Your task to perform on an android device: What is the news today? Image 0: 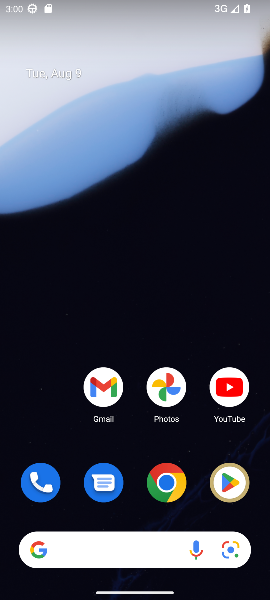
Step 0: drag from (141, 447) to (175, 81)
Your task to perform on an android device: What is the news today? Image 1: 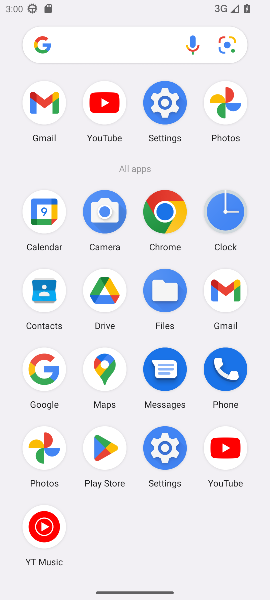
Step 1: click (49, 371)
Your task to perform on an android device: What is the news today? Image 2: 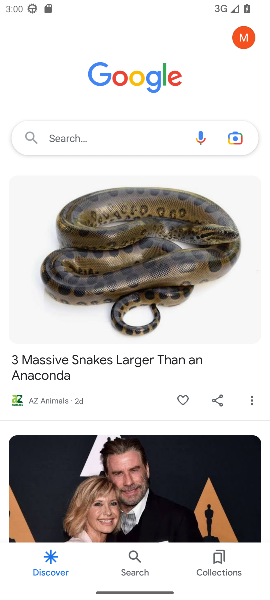
Step 2: click (91, 137)
Your task to perform on an android device: What is the news today? Image 3: 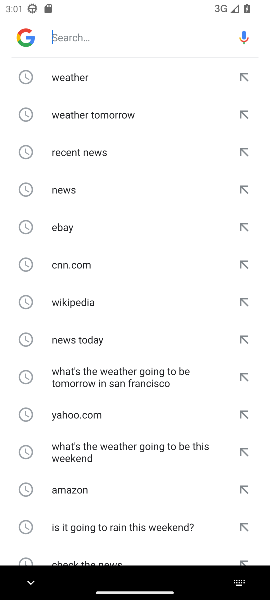
Step 3: type "news"
Your task to perform on an android device: What is the news today? Image 4: 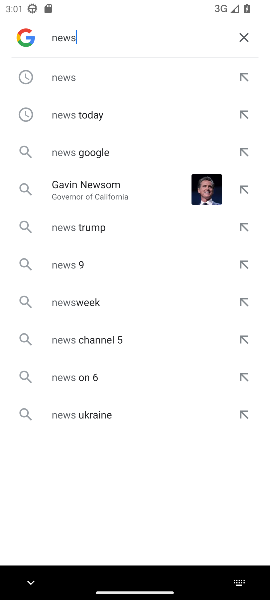
Step 4: click (69, 82)
Your task to perform on an android device: What is the news today? Image 5: 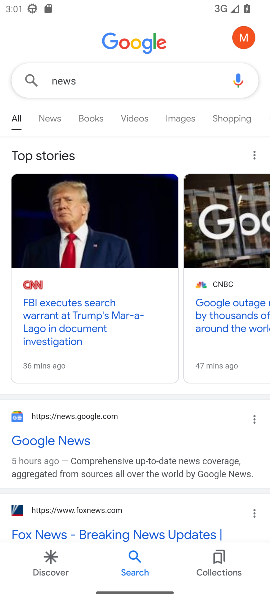
Step 5: click (55, 119)
Your task to perform on an android device: What is the news today? Image 6: 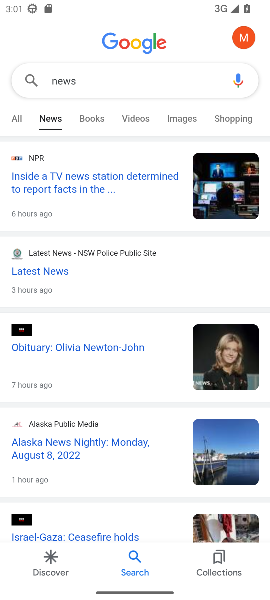
Step 6: task complete